Your task to perform on an android device: change the clock display to digital Image 0: 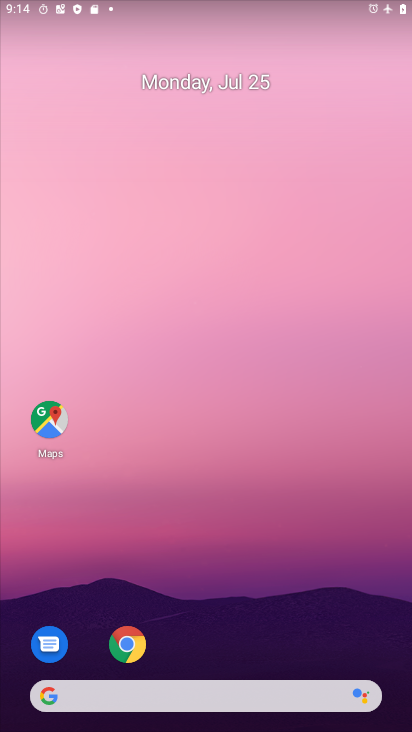
Step 0: drag from (181, 582) to (184, 97)
Your task to perform on an android device: change the clock display to digital Image 1: 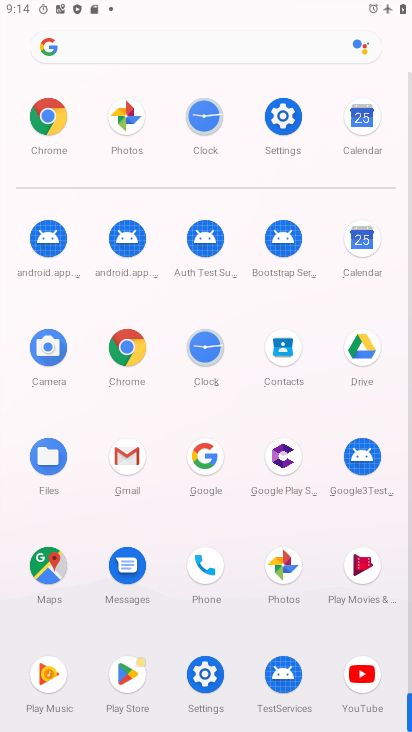
Step 1: click (205, 366)
Your task to perform on an android device: change the clock display to digital Image 2: 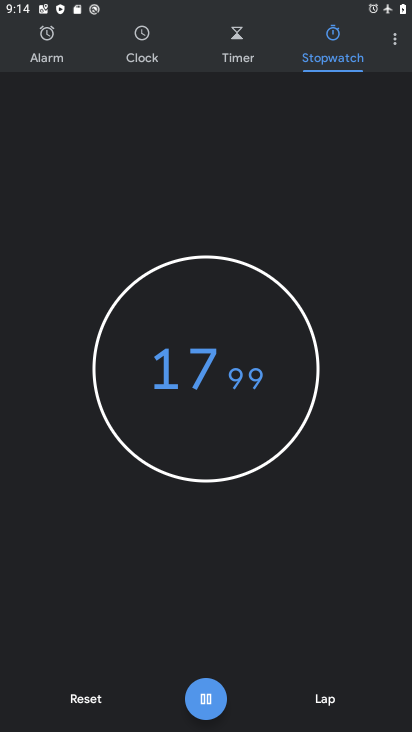
Step 2: click (393, 46)
Your task to perform on an android device: change the clock display to digital Image 3: 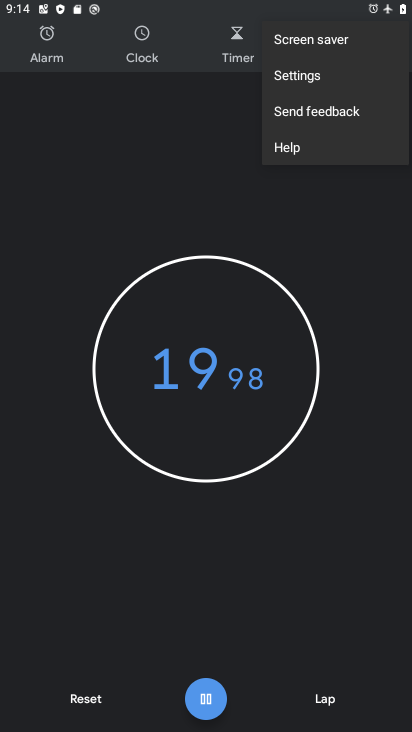
Step 3: click (349, 75)
Your task to perform on an android device: change the clock display to digital Image 4: 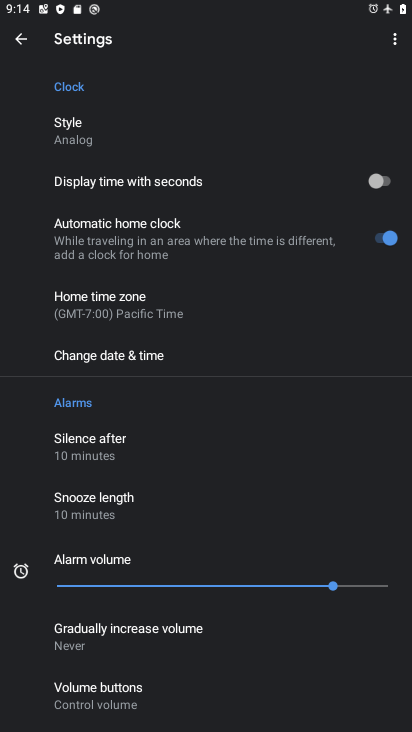
Step 4: click (141, 137)
Your task to perform on an android device: change the clock display to digital Image 5: 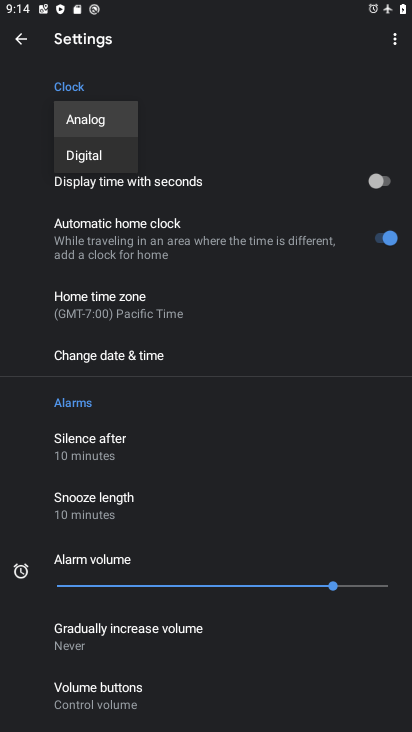
Step 5: click (141, 137)
Your task to perform on an android device: change the clock display to digital Image 6: 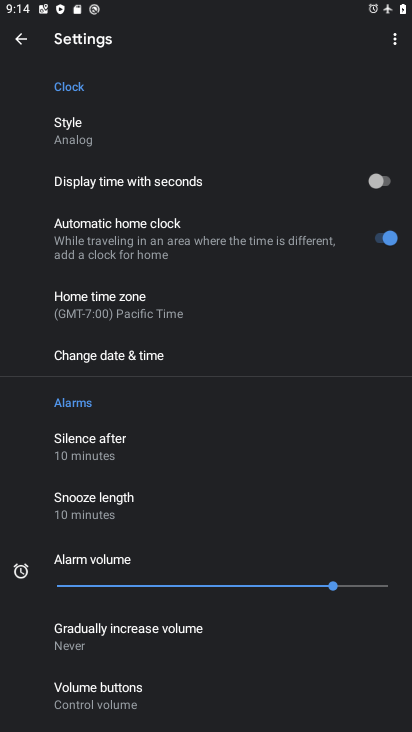
Step 6: click (105, 151)
Your task to perform on an android device: change the clock display to digital Image 7: 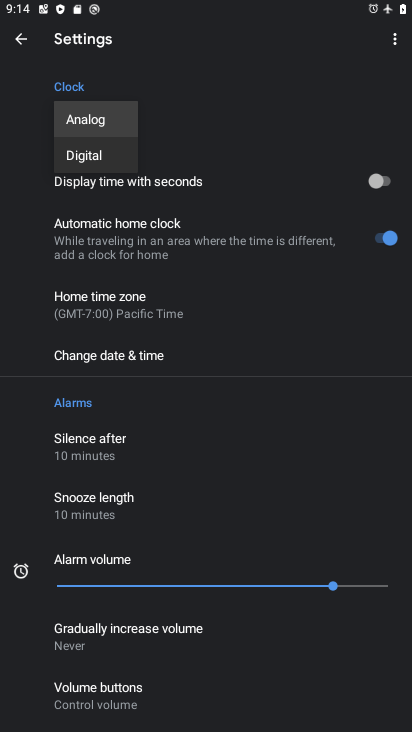
Step 7: click (103, 150)
Your task to perform on an android device: change the clock display to digital Image 8: 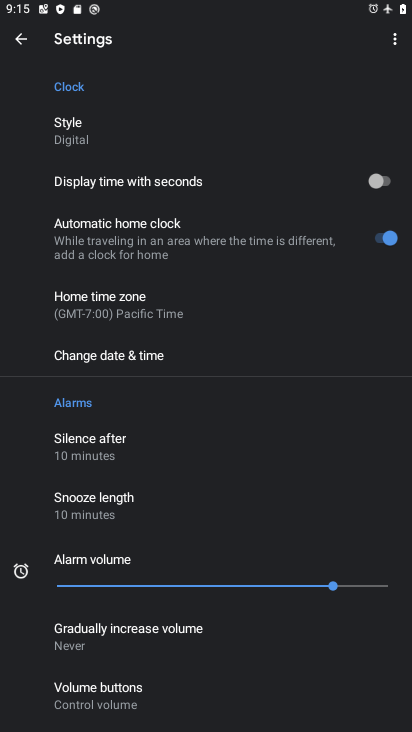
Step 8: task complete